Your task to perform on an android device: Open calendar and show me the second week of next month Image 0: 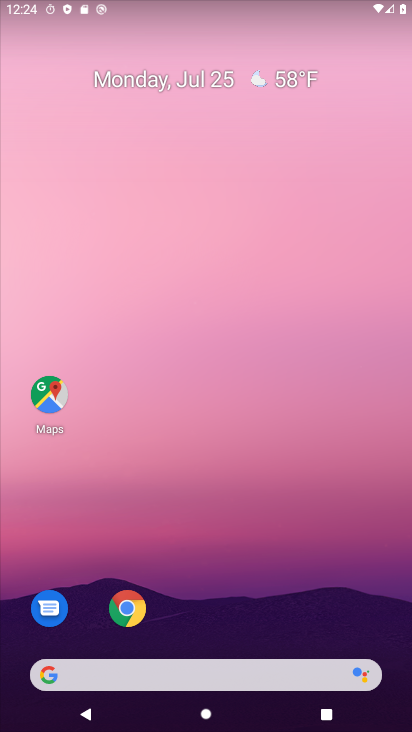
Step 0: drag from (317, 533) to (333, 10)
Your task to perform on an android device: Open calendar and show me the second week of next month Image 1: 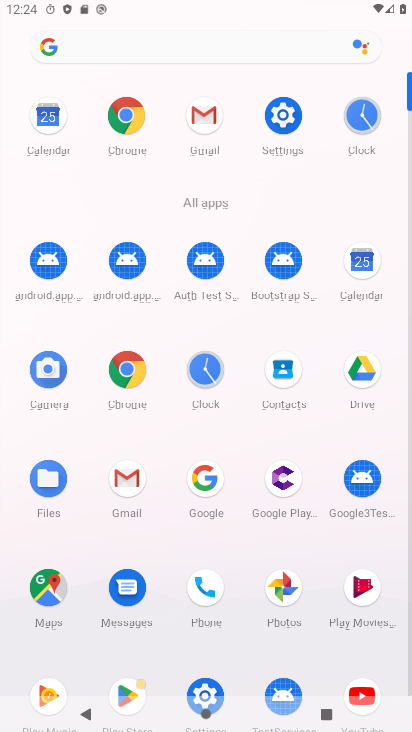
Step 1: click (369, 250)
Your task to perform on an android device: Open calendar and show me the second week of next month Image 2: 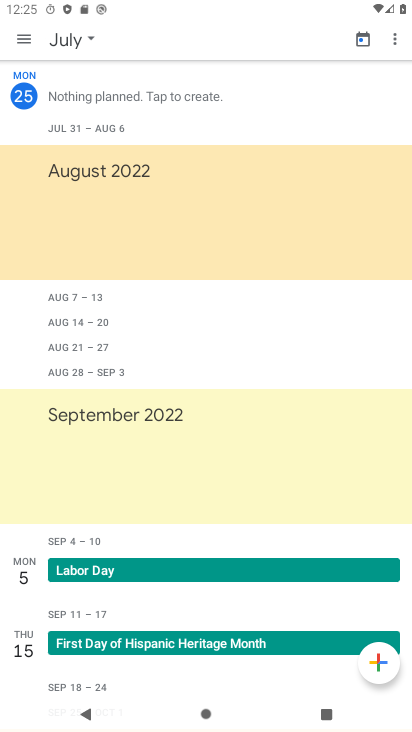
Step 2: click (70, 40)
Your task to perform on an android device: Open calendar and show me the second week of next month Image 3: 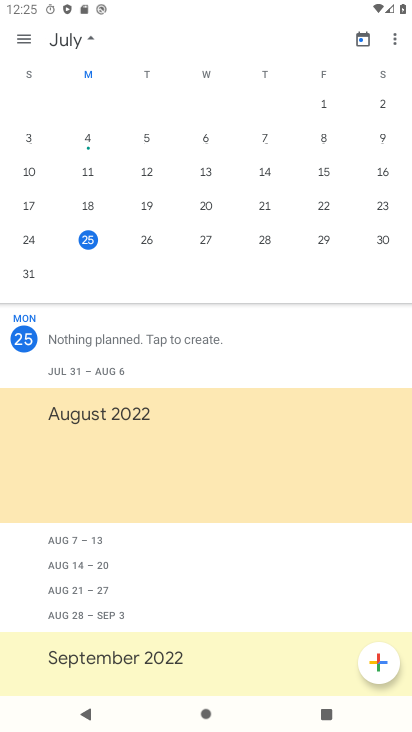
Step 3: drag from (399, 209) to (115, 214)
Your task to perform on an android device: Open calendar and show me the second week of next month Image 4: 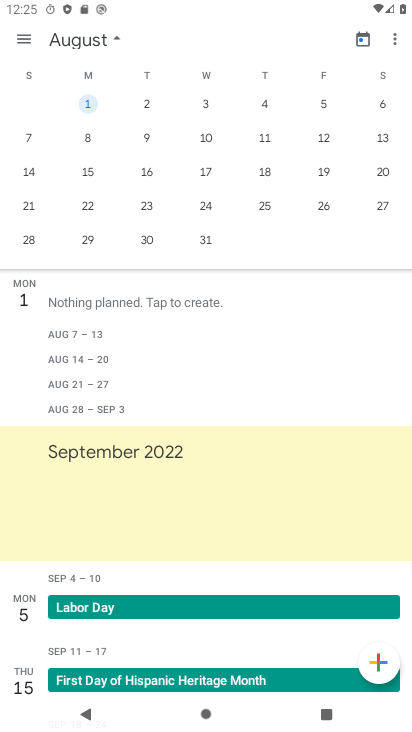
Step 4: click (89, 128)
Your task to perform on an android device: Open calendar and show me the second week of next month Image 5: 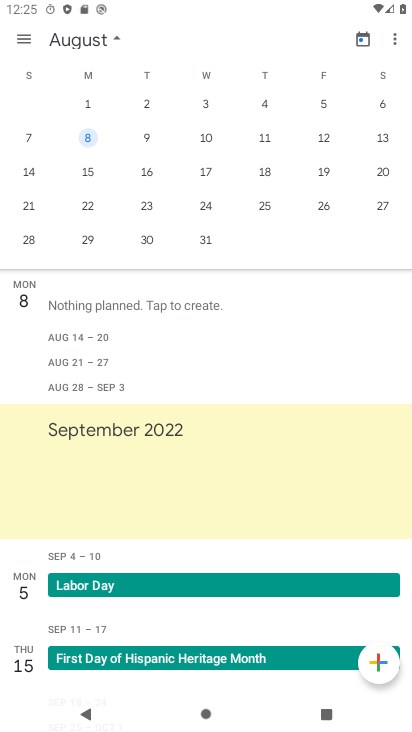
Step 5: click (31, 45)
Your task to perform on an android device: Open calendar and show me the second week of next month Image 6: 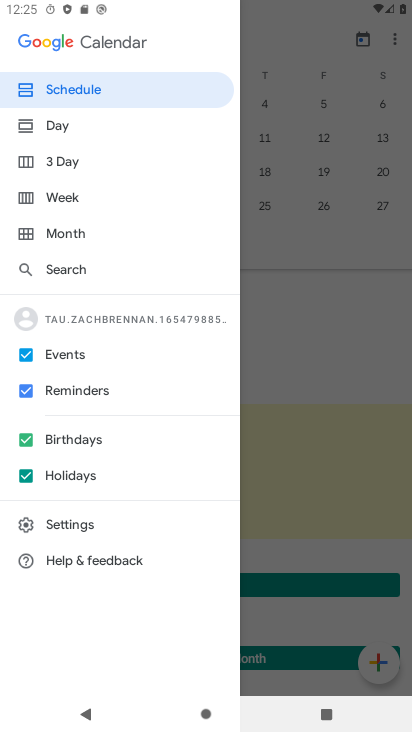
Step 6: click (66, 192)
Your task to perform on an android device: Open calendar and show me the second week of next month Image 7: 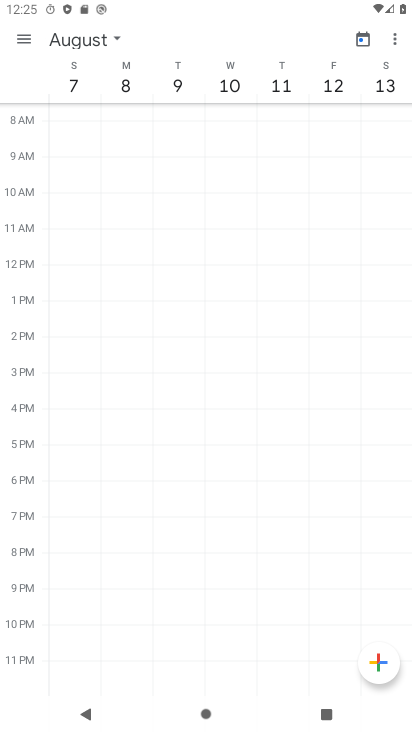
Step 7: task complete